Your task to perform on an android device: Open Google Maps and go to "Timeline" Image 0: 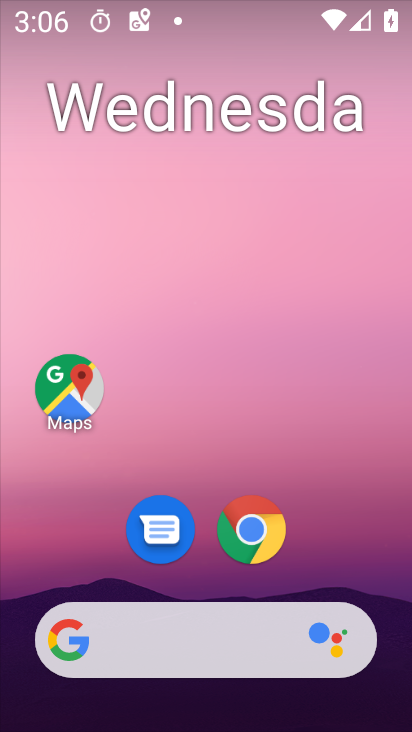
Step 0: drag from (341, 571) to (319, 36)
Your task to perform on an android device: Open Google Maps and go to "Timeline" Image 1: 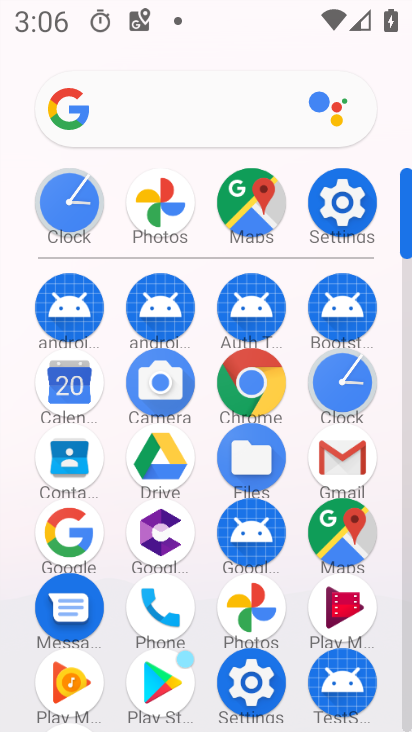
Step 1: click (333, 521)
Your task to perform on an android device: Open Google Maps and go to "Timeline" Image 2: 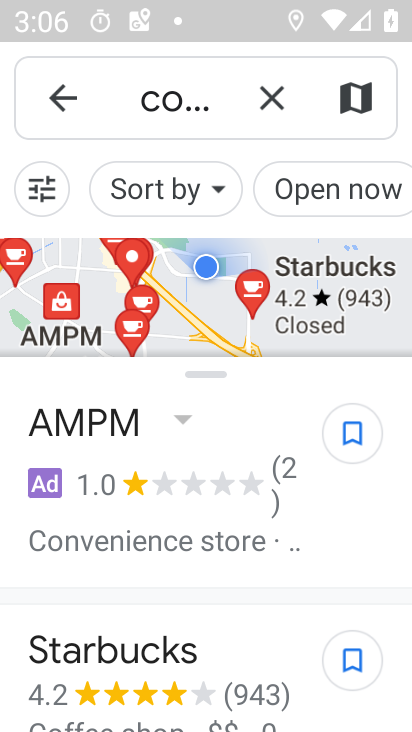
Step 2: click (44, 93)
Your task to perform on an android device: Open Google Maps and go to "Timeline" Image 3: 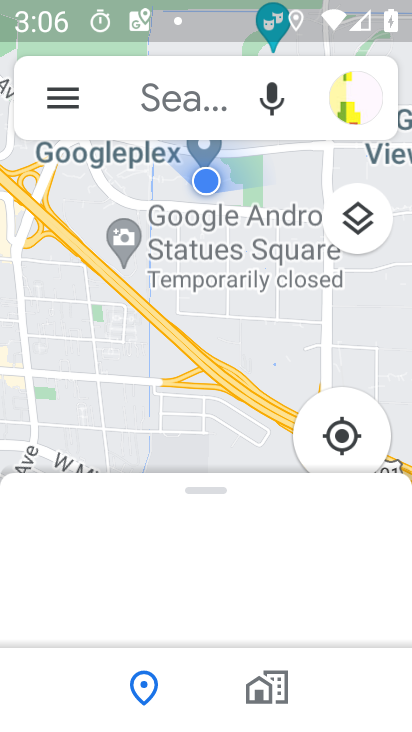
Step 3: click (44, 93)
Your task to perform on an android device: Open Google Maps and go to "Timeline" Image 4: 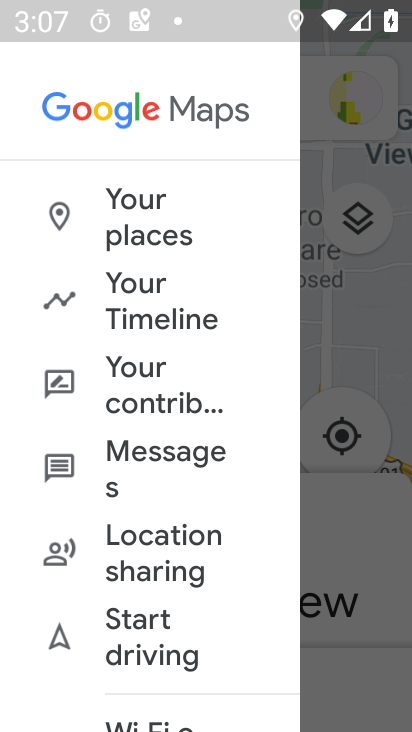
Step 4: click (123, 295)
Your task to perform on an android device: Open Google Maps and go to "Timeline" Image 5: 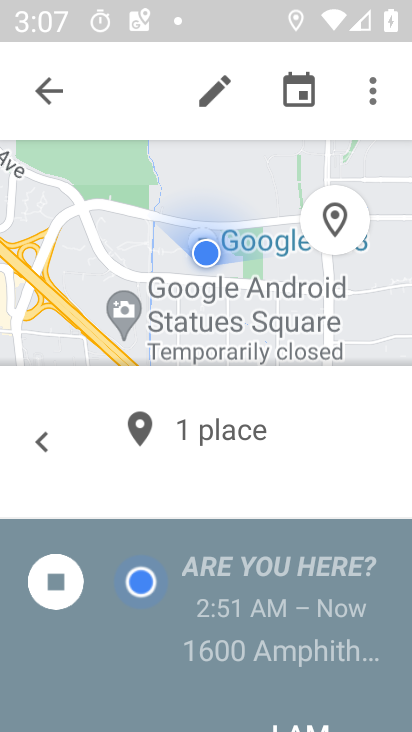
Step 5: task complete